Your task to perform on an android device: Check the news Image 0: 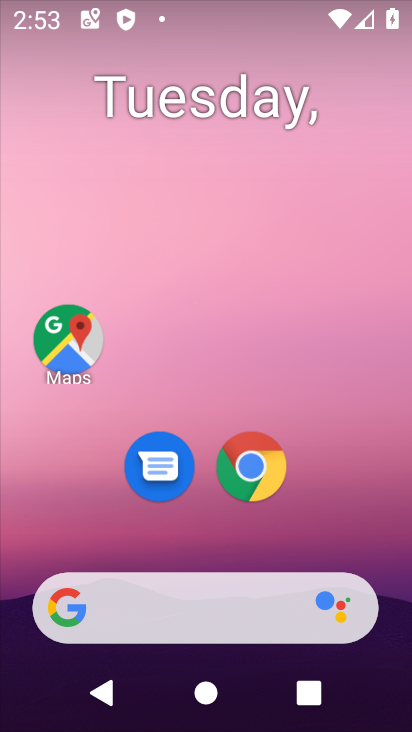
Step 0: click (168, 588)
Your task to perform on an android device: Check the news Image 1: 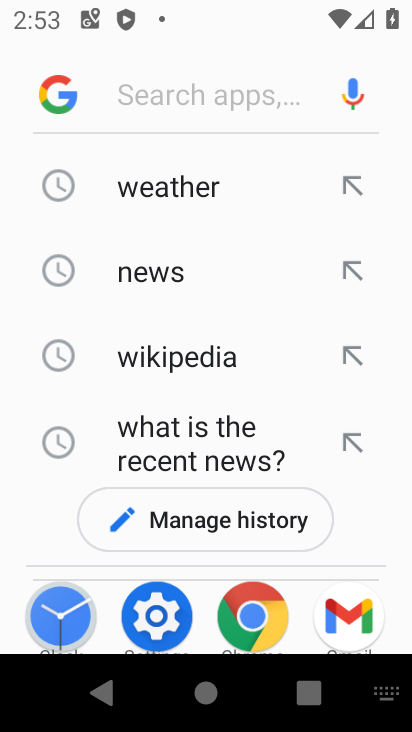
Step 1: click (219, 192)
Your task to perform on an android device: Check the news Image 2: 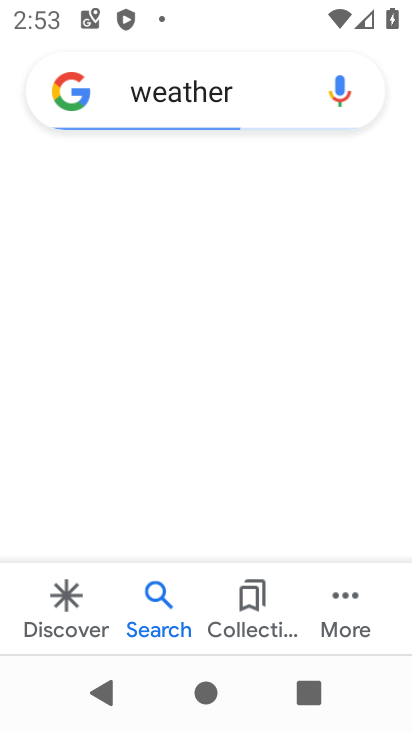
Step 2: task complete